Your task to perform on an android device: Open network settings Image 0: 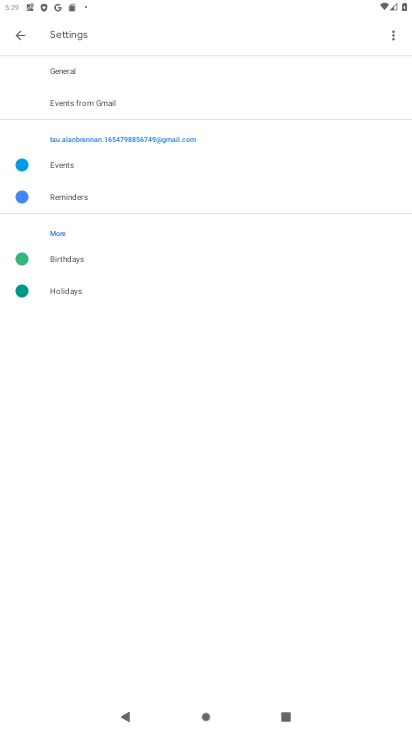
Step 0: press home button
Your task to perform on an android device: Open network settings Image 1: 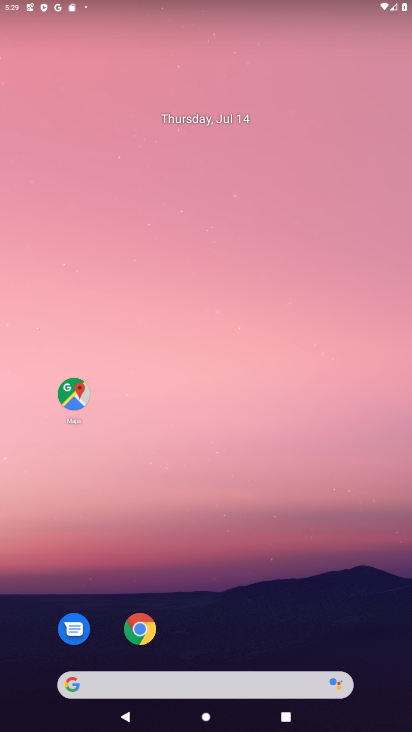
Step 1: drag from (275, 686) to (228, 3)
Your task to perform on an android device: Open network settings Image 2: 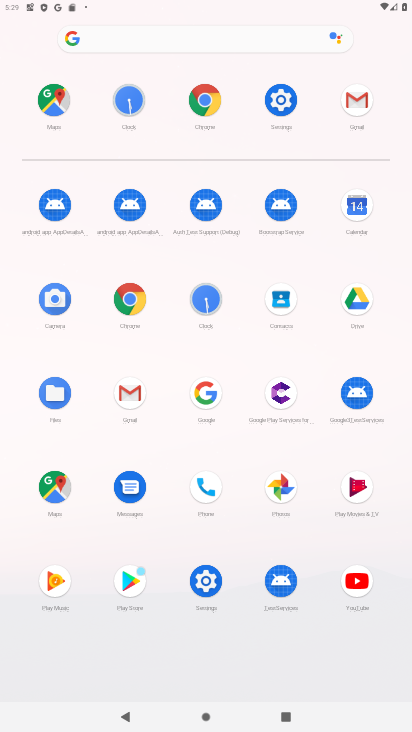
Step 2: click (283, 96)
Your task to perform on an android device: Open network settings Image 3: 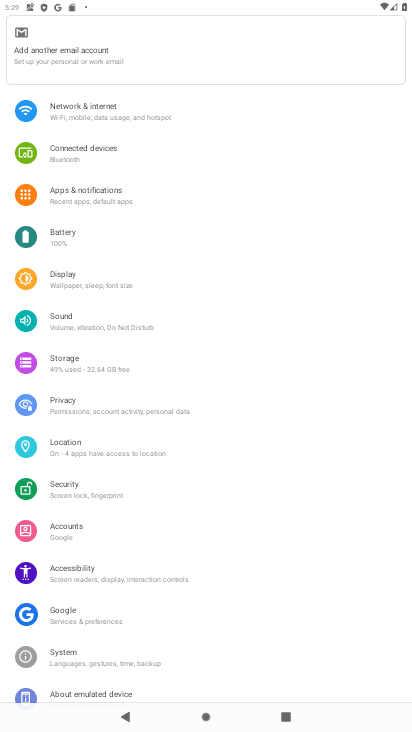
Step 3: click (110, 120)
Your task to perform on an android device: Open network settings Image 4: 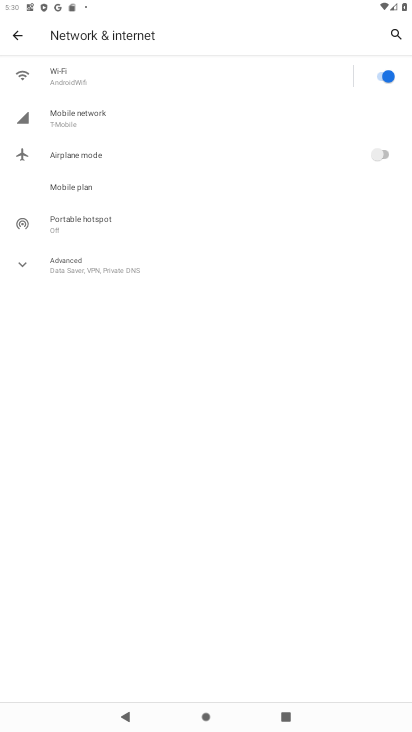
Step 4: task complete